Your task to perform on an android device: Open the Play Movies app and select the watchlist tab. Image 0: 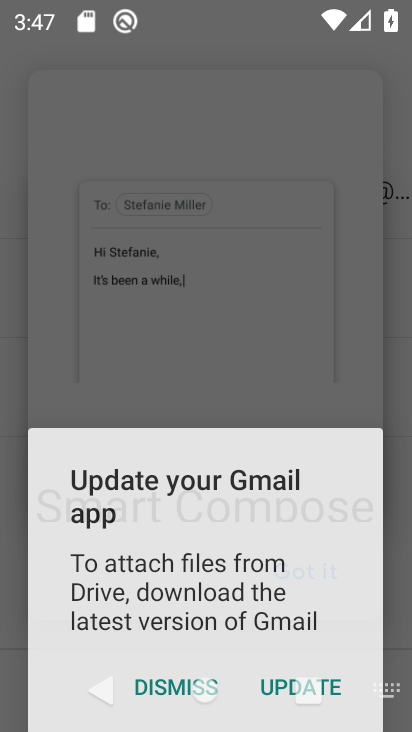
Step 0: press home button
Your task to perform on an android device: Open the Play Movies app and select the watchlist tab. Image 1: 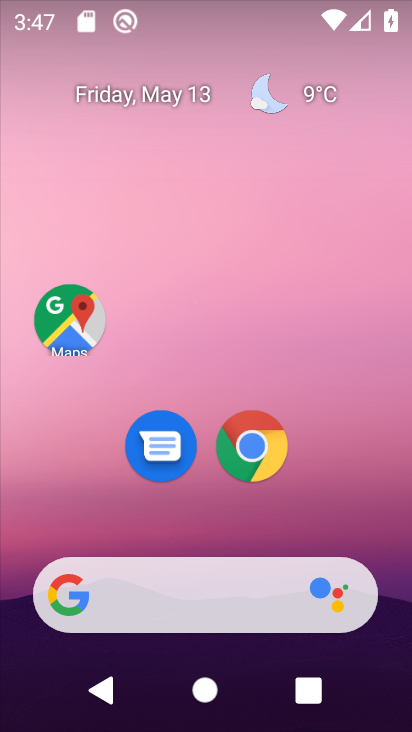
Step 1: drag from (219, 540) to (235, 51)
Your task to perform on an android device: Open the Play Movies app and select the watchlist tab. Image 2: 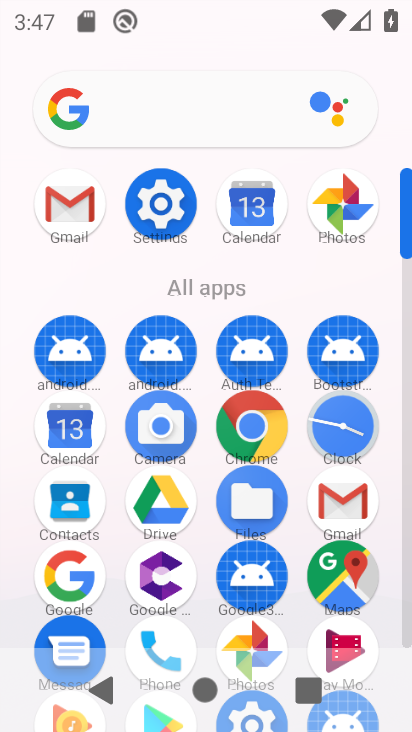
Step 2: drag from (290, 616) to (300, 279)
Your task to perform on an android device: Open the Play Movies app and select the watchlist tab. Image 3: 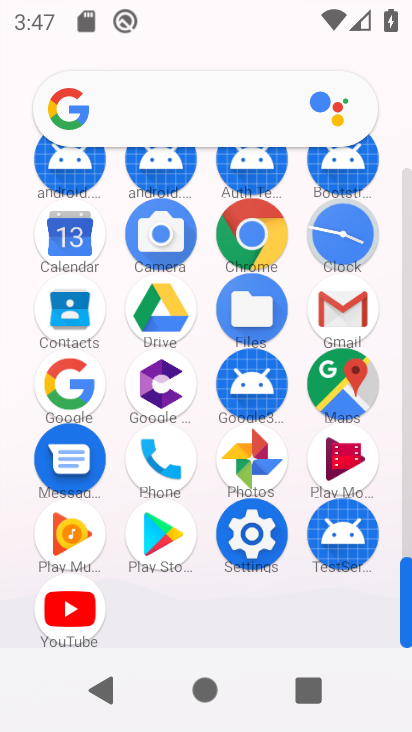
Step 3: click (338, 460)
Your task to perform on an android device: Open the Play Movies app and select the watchlist tab. Image 4: 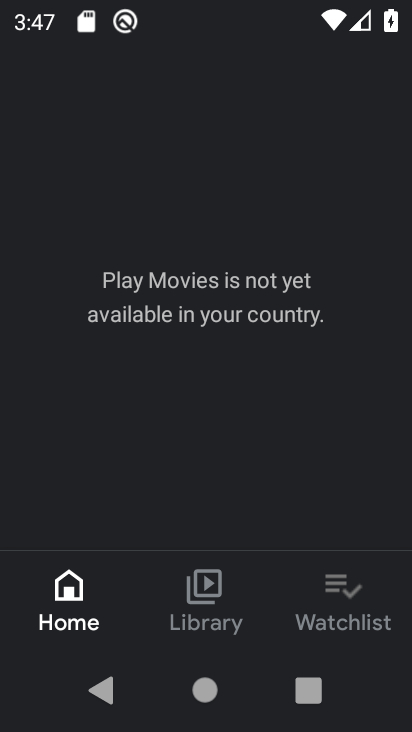
Step 4: click (336, 602)
Your task to perform on an android device: Open the Play Movies app and select the watchlist tab. Image 5: 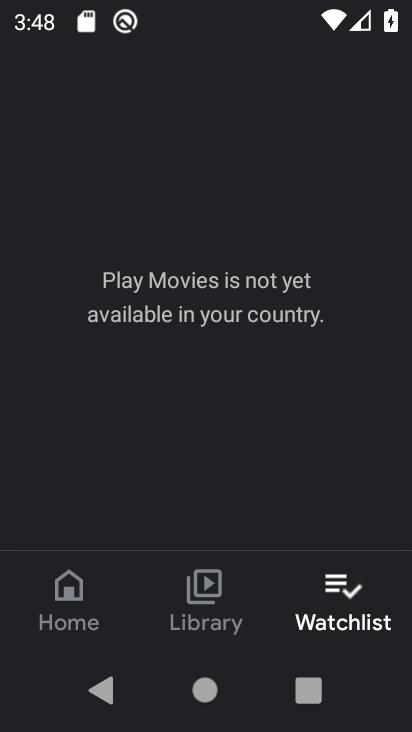
Step 5: task complete